Your task to perform on an android device: Open Android settings Image 0: 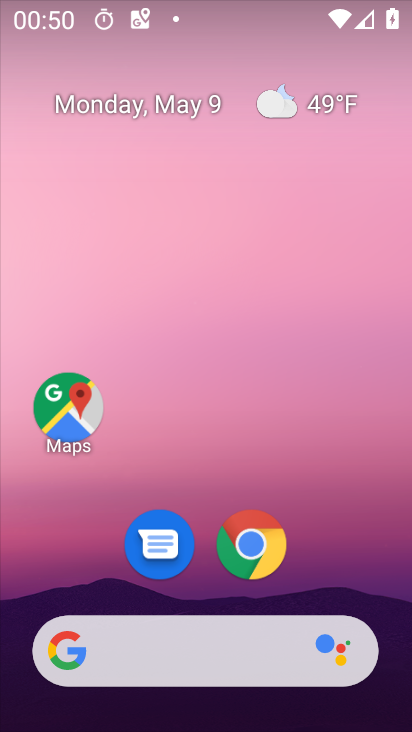
Step 0: drag from (337, 612) to (377, 12)
Your task to perform on an android device: Open Android settings Image 1: 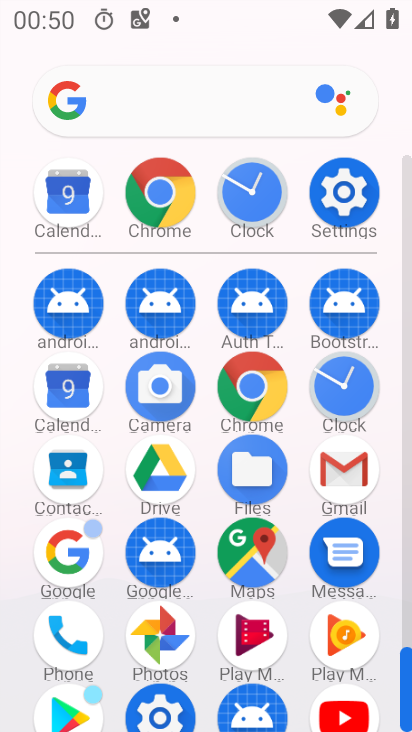
Step 1: click (352, 186)
Your task to perform on an android device: Open Android settings Image 2: 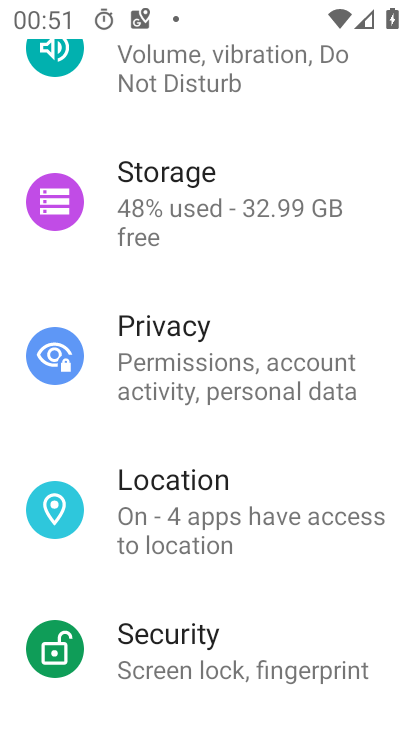
Step 2: drag from (239, 663) to (221, 79)
Your task to perform on an android device: Open Android settings Image 3: 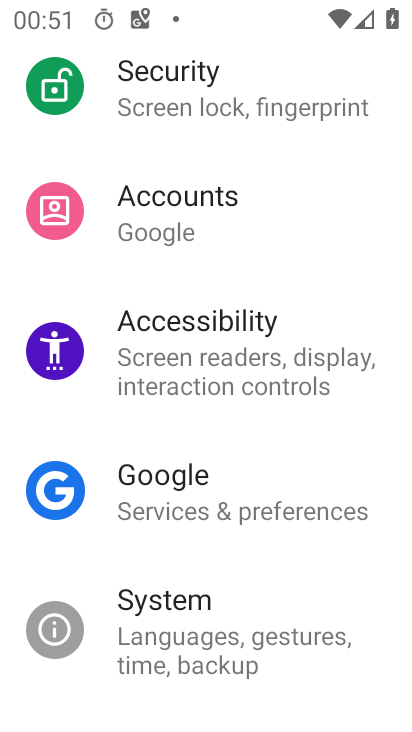
Step 3: drag from (320, 705) to (277, 150)
Your task to perform on an android device: Open Android settings Image 4: 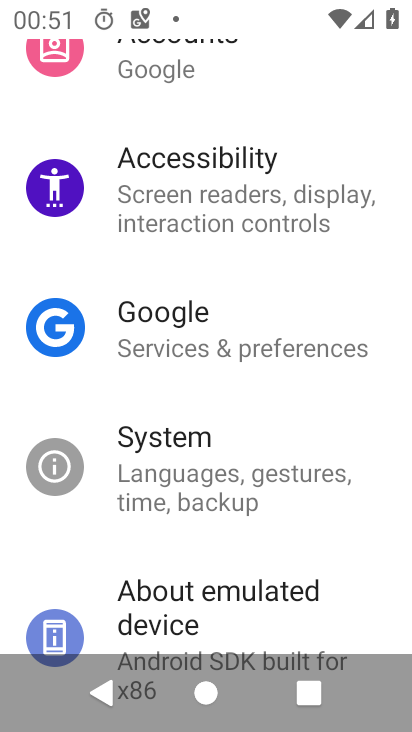
Step 4: click (270, 627)
Your task to perform on an android device: Open Android settings Image 5: 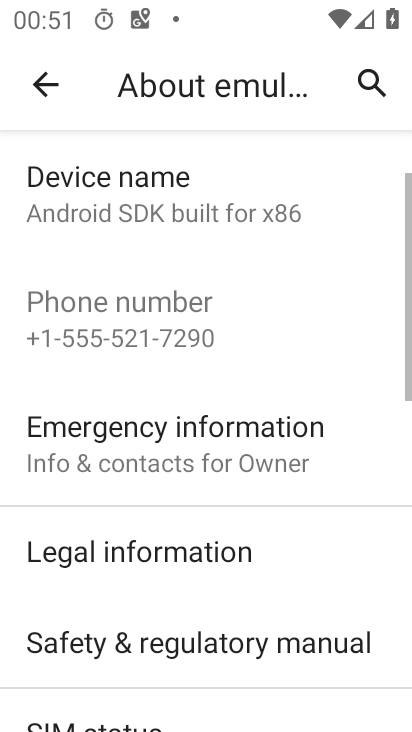
Step 5: task complete